Your task to perform on an android device: Show the shopping cart on walmart. Add "usb-c" to the cart on walmart Image 0: 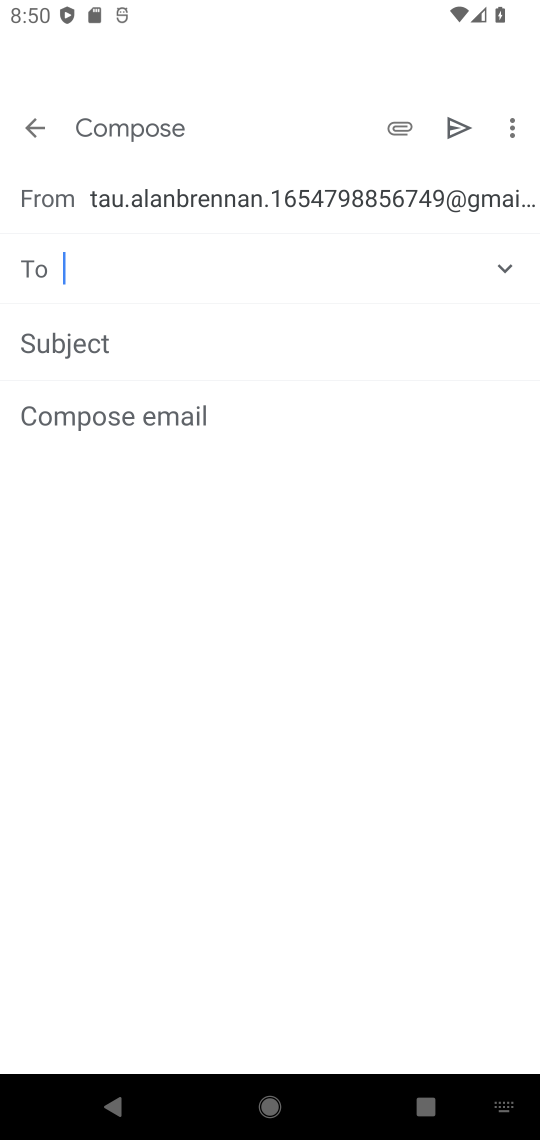
Step 0: press home button
Your task to perform on an android device: Show the shopping cart on walmart. Add "usb-c" to the cart on walmart Image 1: 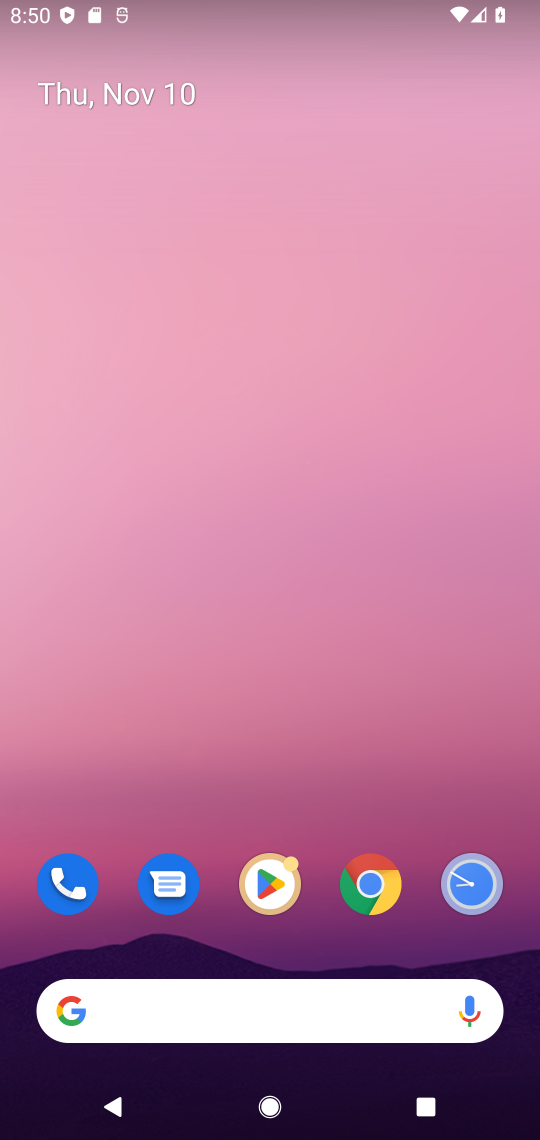
Step 1: click (278, 997)
Your task to perform on an android device: Show the shopping cart on walmart. Add "usb-c" to the cart on walmart Image 2: 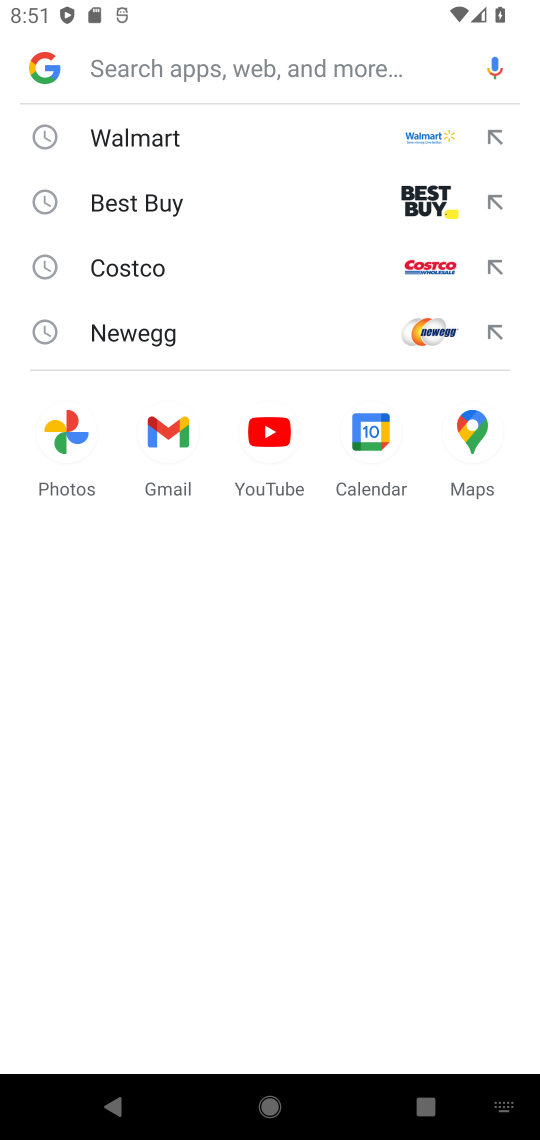
Step 2: click (138, 146)
Your task to perform on an android device: Show the shopping cart on walmart. Add "usb-c" to the cart on walmart Image 3: 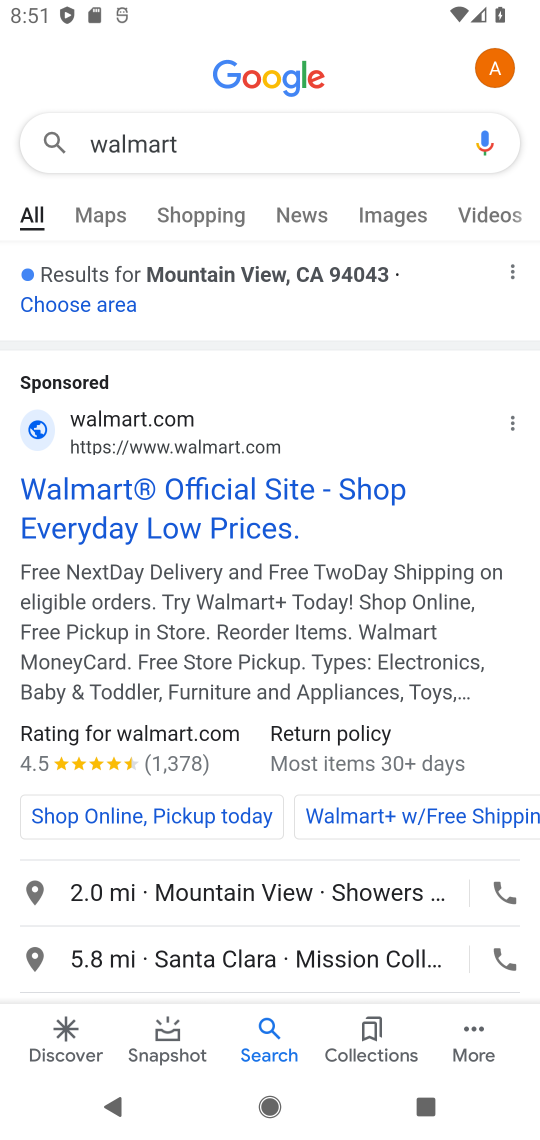
Step 3: click (96, 414)
Your task to perform on an android device: Show the shopping cart on walmart. Add "usb-c" to the cart on walmart Image 4: 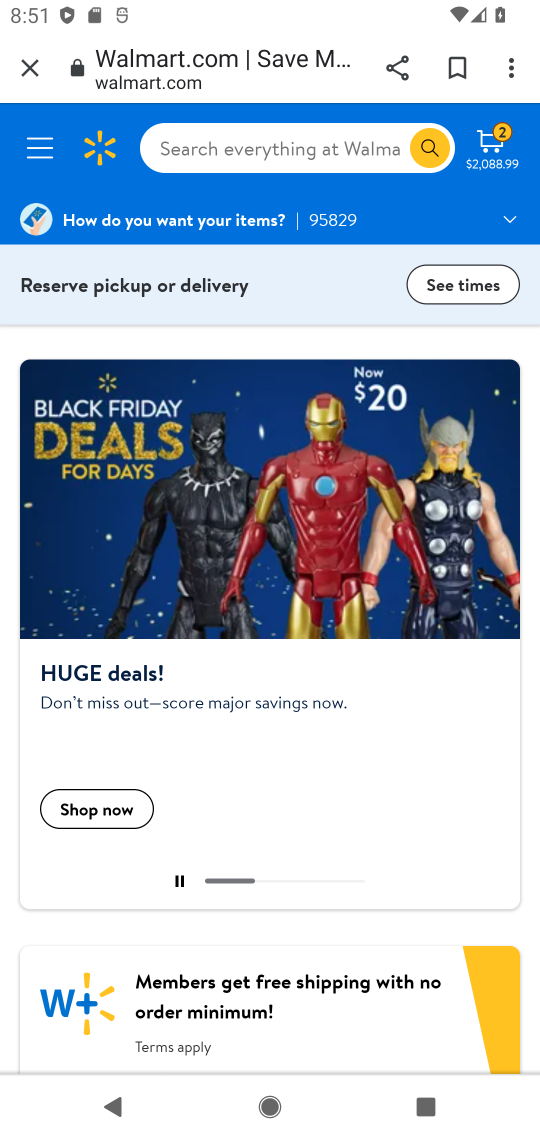
Step 4: click (293, 140)
Your task to perform on an android device: Show the shopping cart on walmart. Add "usb-c" to the cart on walmart Image 5: 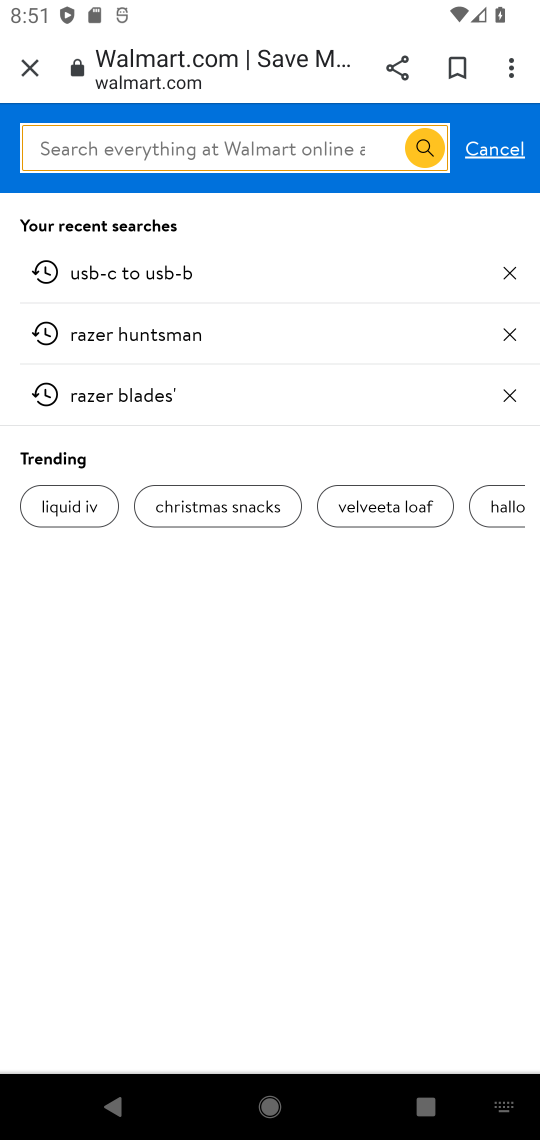
Step 5: type "usb-c"
Your task to perform on an android device: Show the shopping cart on walmart. Add "usb-c" to the cart on walmart Image 6: 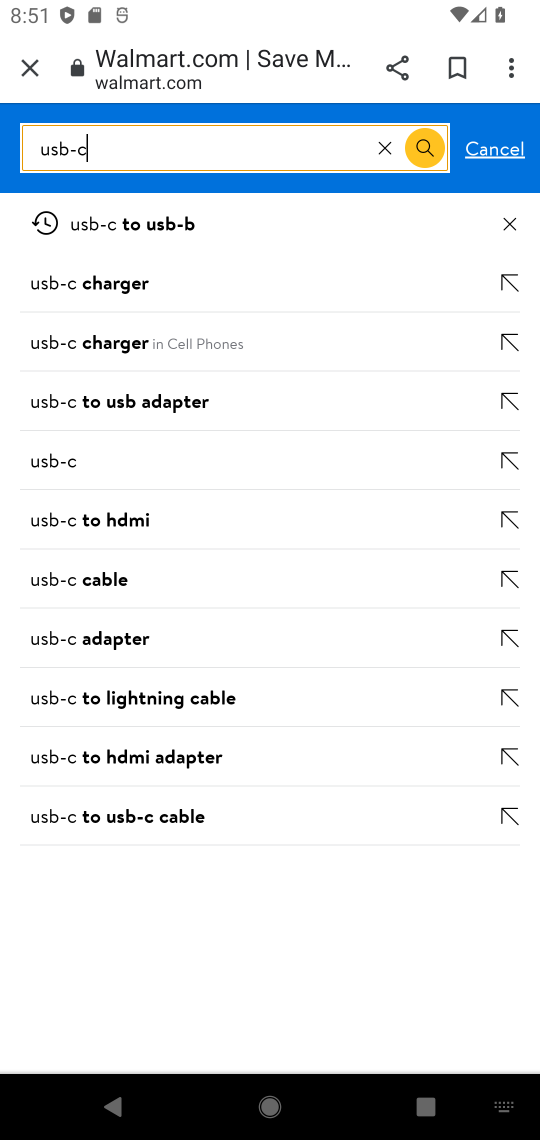
Step 6: click (66, 449)
Your task to perform on an android device: Show the shopping cart on walmart. Add "usb-c" to the cart on walmart Image 7: 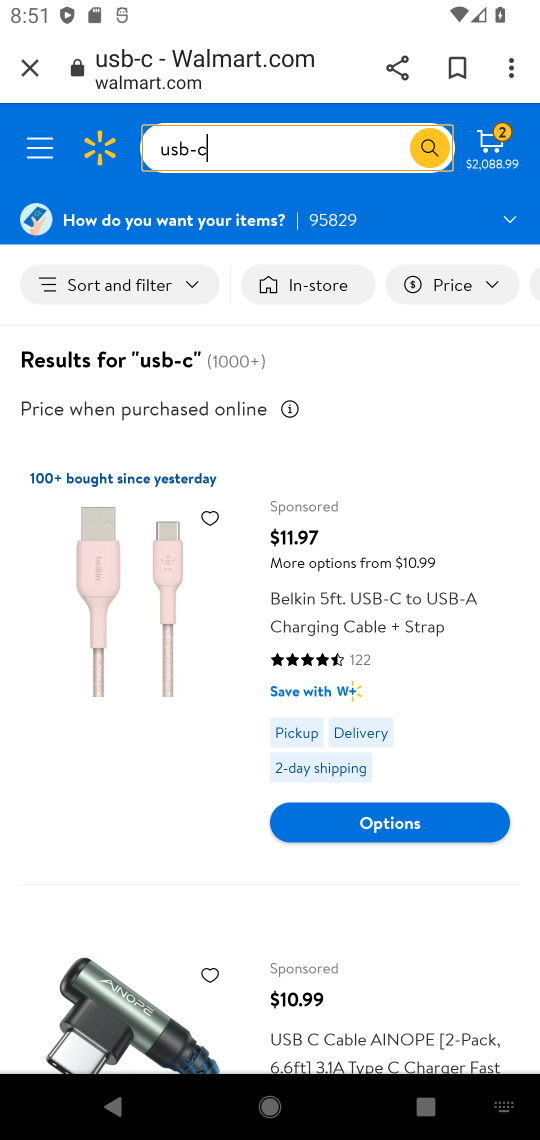
Step 7: click (374, 824)
Your task to perform on an android device: Show the shopping cart on walmart. Add "usb-c" to the cart on walmart Image 8: 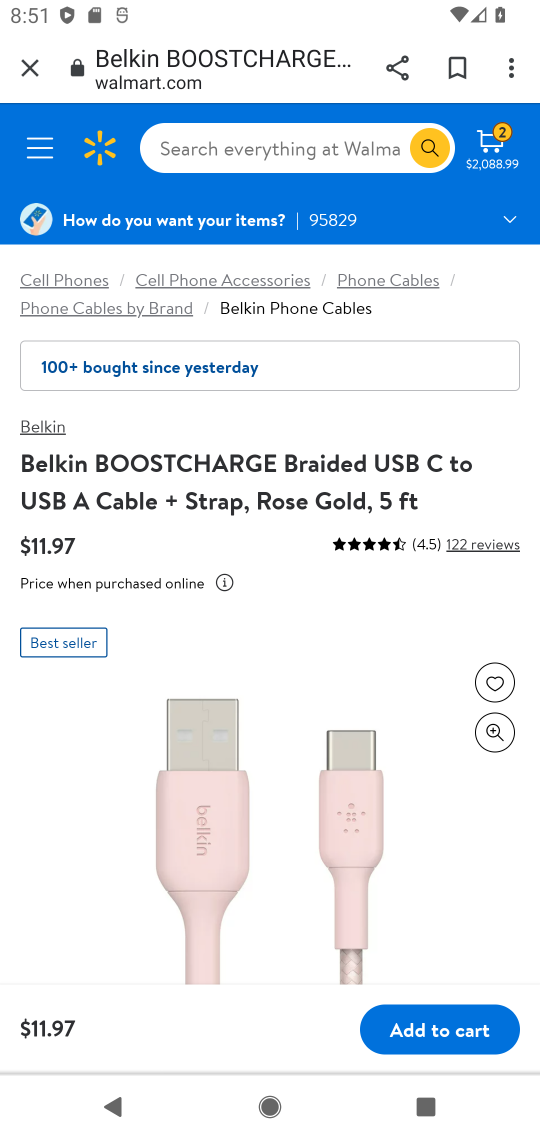
Step 8: click (439, 1012)
Your task to perform on an android device: Show the shopping cart on walmart. Add "usb-c" to the cart on walmart Image 9: 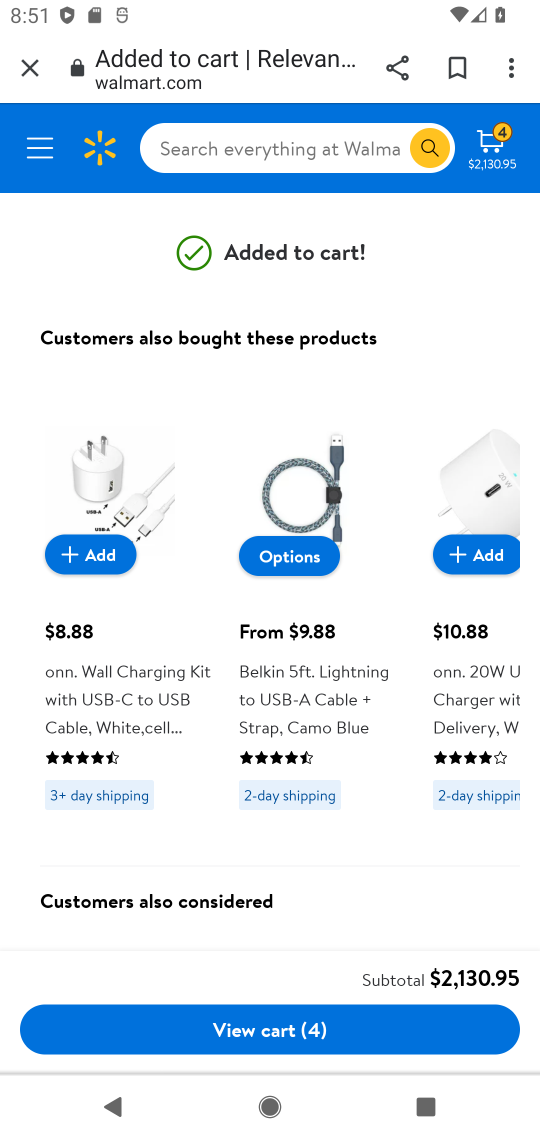
Step 9: task complete